Your task to perform on an android device: Show me popular videos on Youtube Image 0: 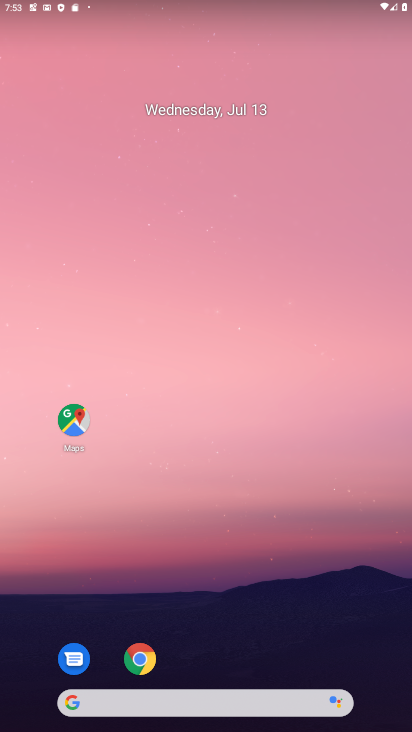
Step 0: drag from (201, 656) to (312, 133)
Your task to perform on an android device: Show me popular videos on Youtube Image 1: 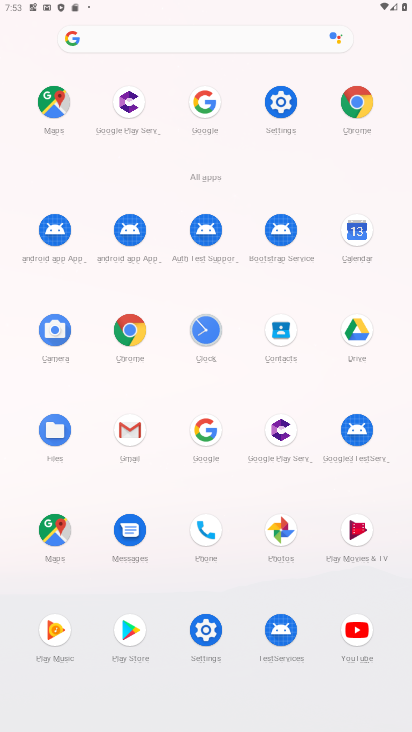
Step 1: click (346, 655)
Your task to perform on an android device: Show me popular videos on Youtube Image 2: 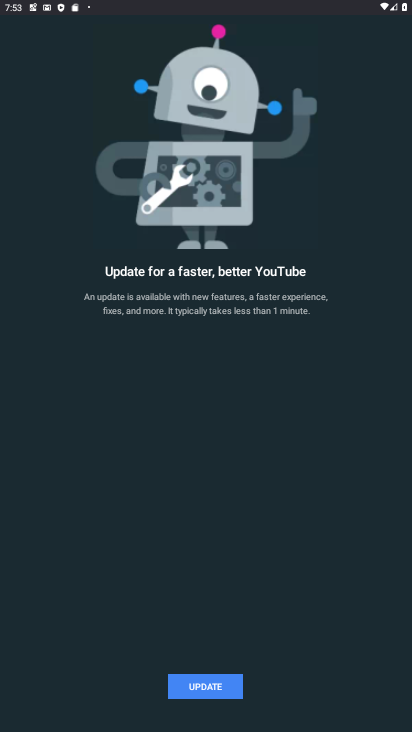
Step 2: click (228, 695)
Your task to perform on an android device: Show me popular videos on Youtube Image 3: 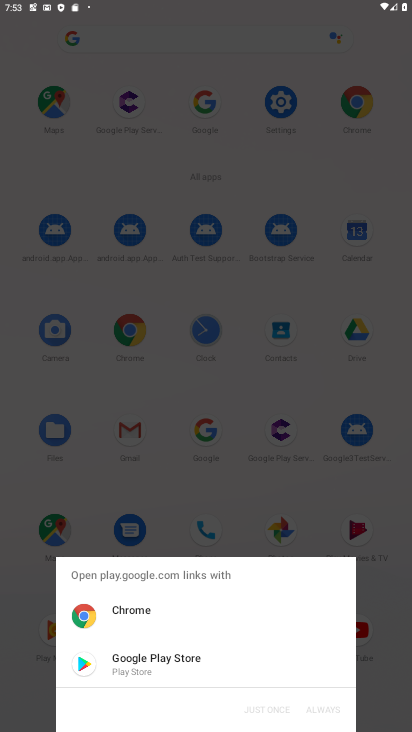
Step 3: click (131, 647)
Your task to perform on an android device: Show me popular videos on Youtube Image 4: 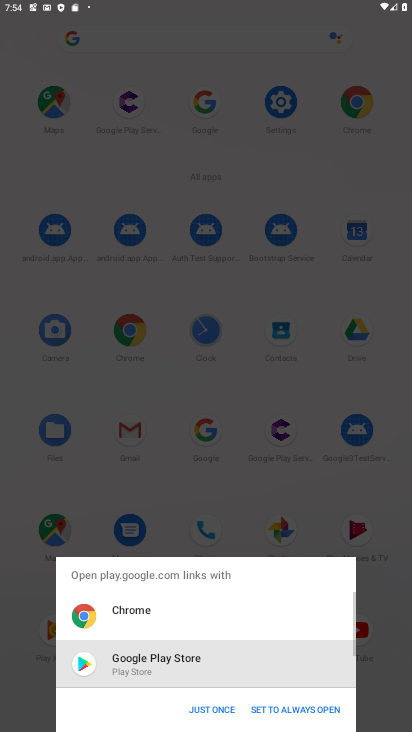
Step 4: click (213, 712)
Your task to perform on an android device: Show me popular videos on Youtube Image 5: 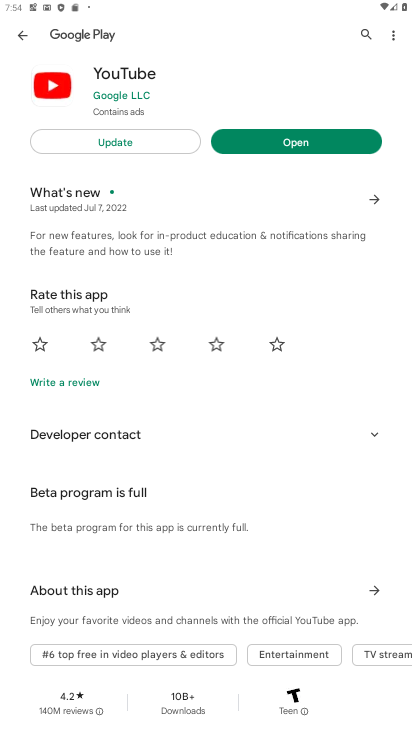
Step 5: click (138, 136)
Your task to perform on an android device: Show me popular videos on Youtube Image 6: 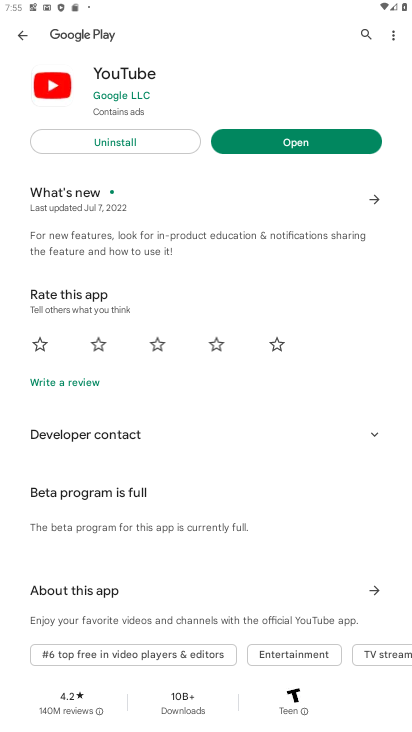
Step 6: click (310, 136)
Your task to perform on an android device: Show me popular videos on Youtube Image 7: 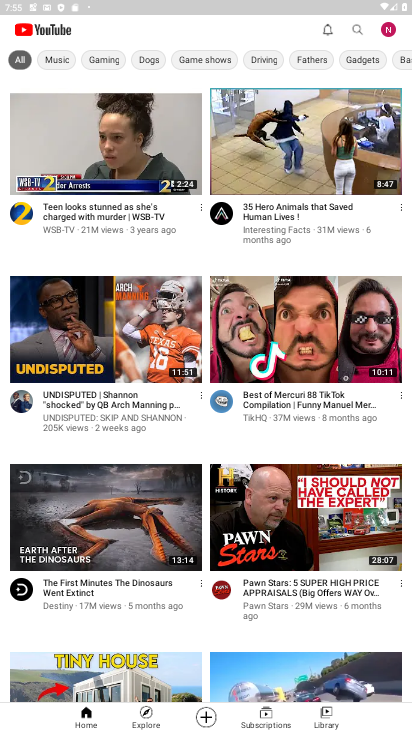
Step 7: click (360, 29)
Your task to perform on an android device: Show me popular videos on Youtube Image 8: 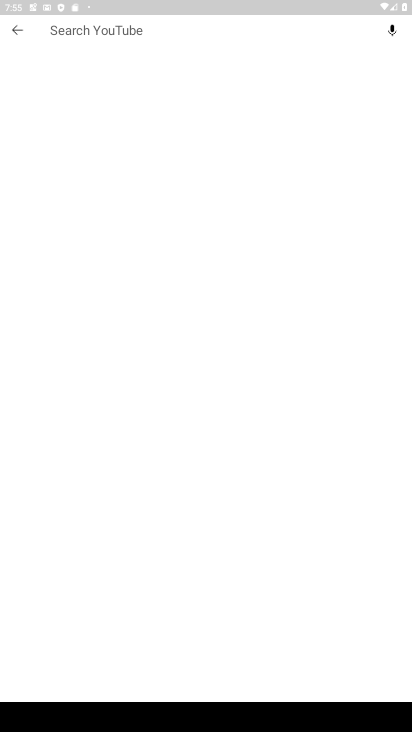
Step 8: type "popular videos"
Your task to perform on an android device: Show me popular videos on Youtube Image 9: 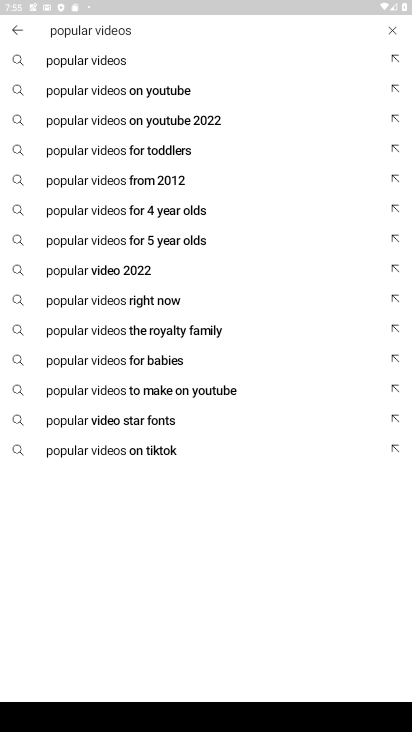
Step 9: click (121, 68)
Your task to perform on an android device: Show me popular videos on Youtube Image 10: 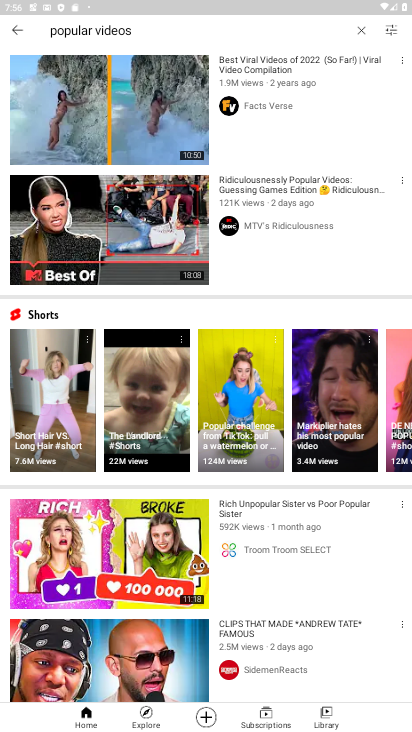
Step 10: task complete